Your task to perform on an android device: turn off location Image 0: 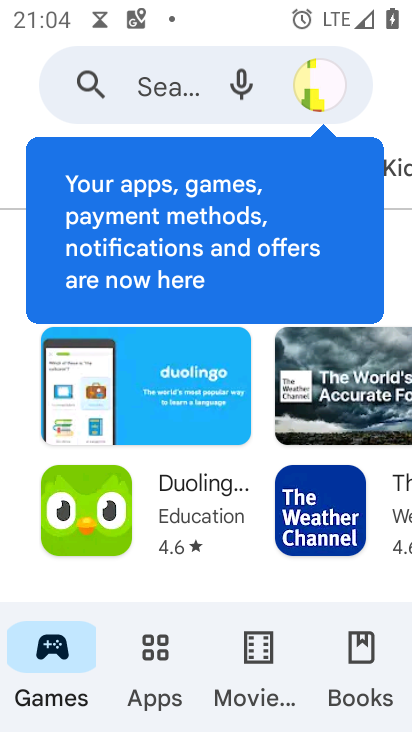
Step 0: press home button
Your task to perform on an android device: turn off location Image 1: 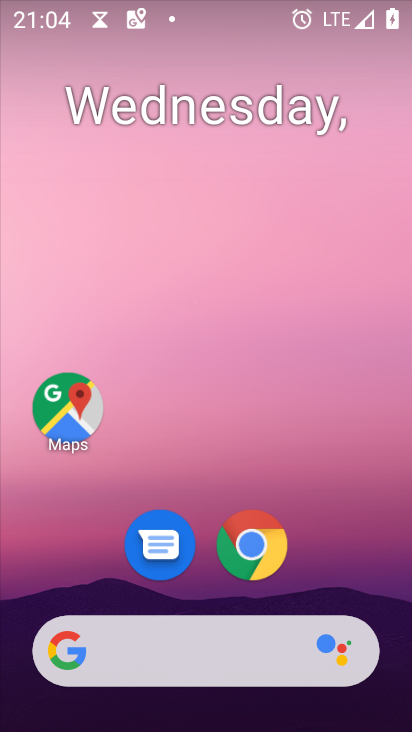
Step 1: drag from (137, 663) to (235, 98)
Your task to perform on an android device: turn off location Image 2: 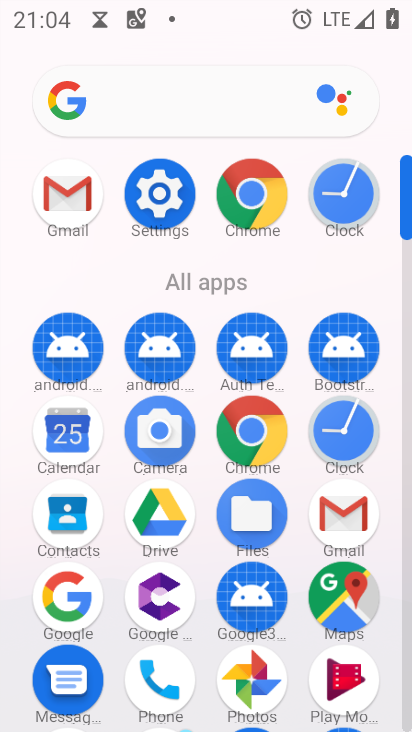
Step 2: click (152, 192)
Your task to perform on an android device: turn off location Image 3: 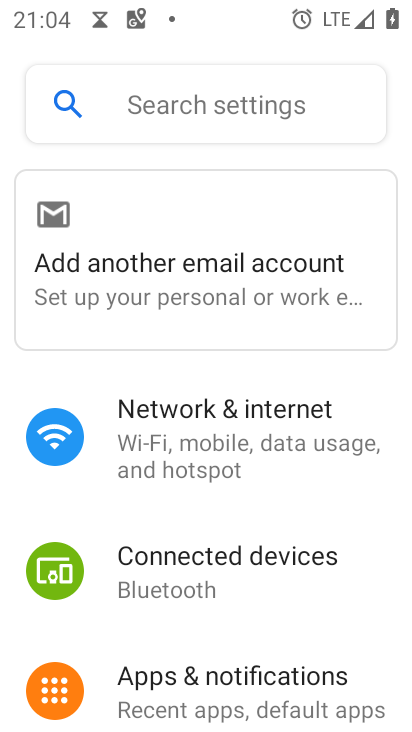
Step 3: drag from (214, 642) to (305, 149)
Your task to perform on an android device: turn off location Image 4: 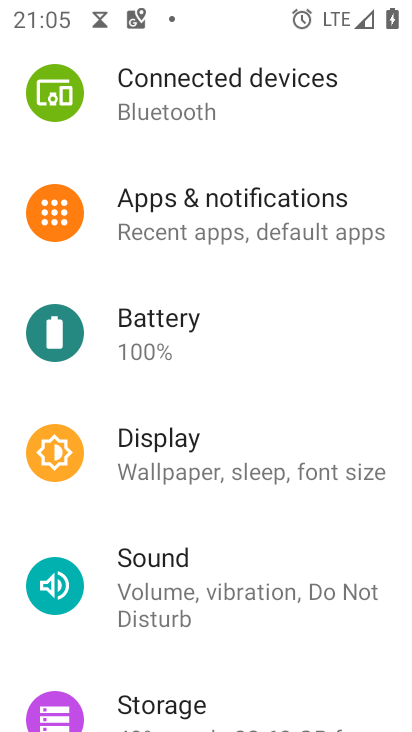
Step 4: drag from (216, 650) to (312, 159)
Your task to perform on an android device: turn off location Image 5: 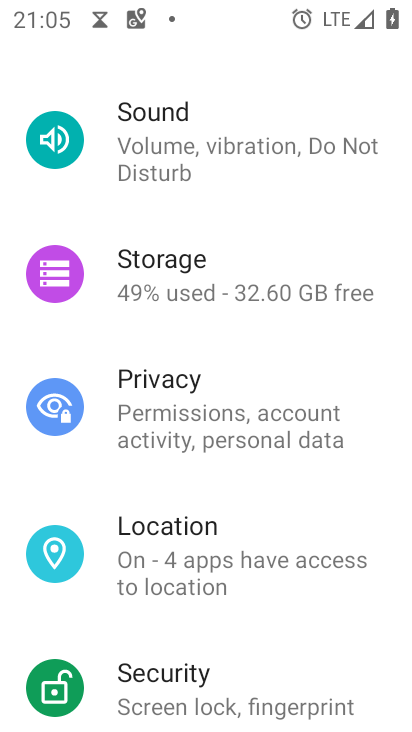
Step 5: click (178, 544)
Your task to perform on an android device: turn off location Image 6: 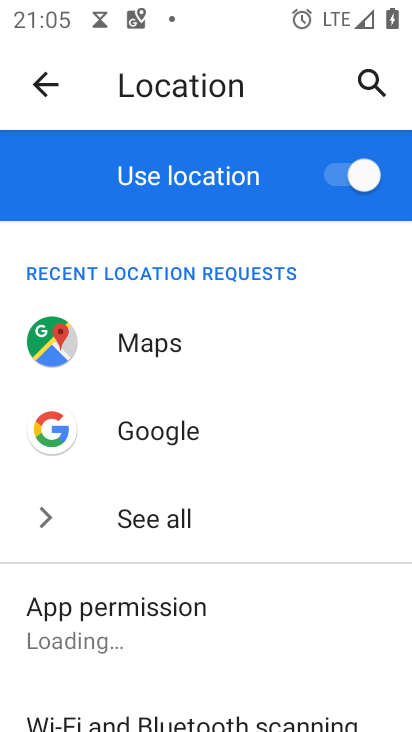
Step 6: click (336, 168)
Your task to perform on an android device: turn off location Image 7: 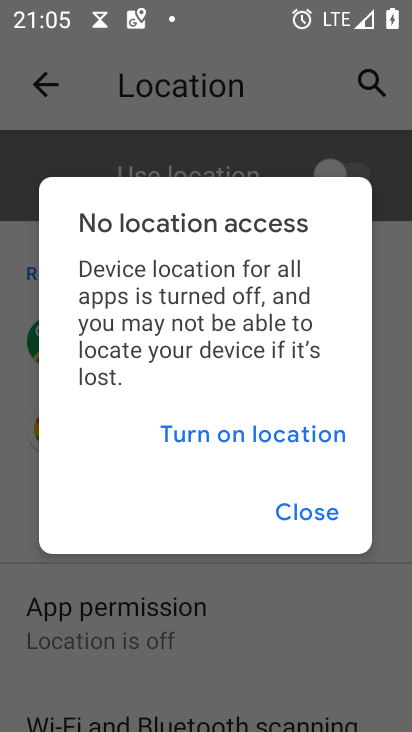
Step 7: click (295, 513)
Your task to perform on an android device: turn off location Image 8: 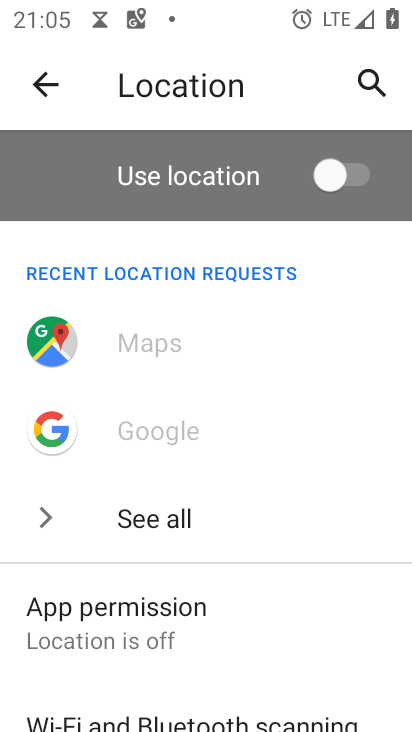
Step 8: task complete